Your task to perform on an android device: Turn off the flashlight Image 0: 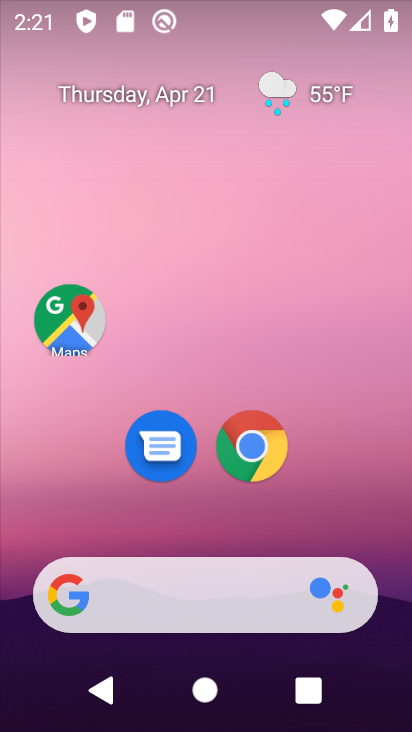
Step 0: drag from (209, 724) to (209, 102)
Your task to perform on an android device: Turn off the flashlight Image 1: 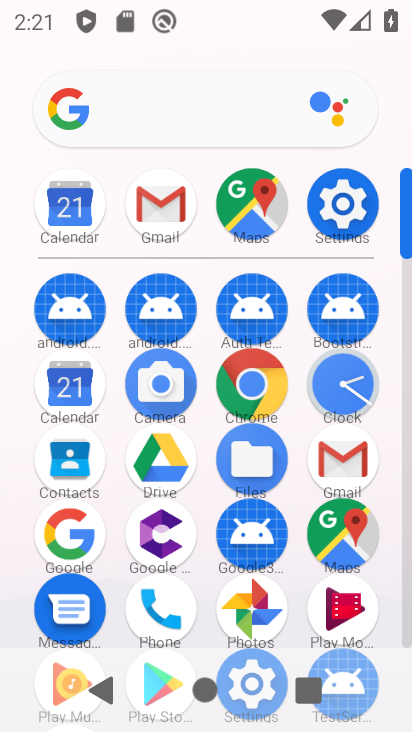
Step 1: click (340, 187)
Your task to perform on an android device: Turn off the flashlight Image 2: 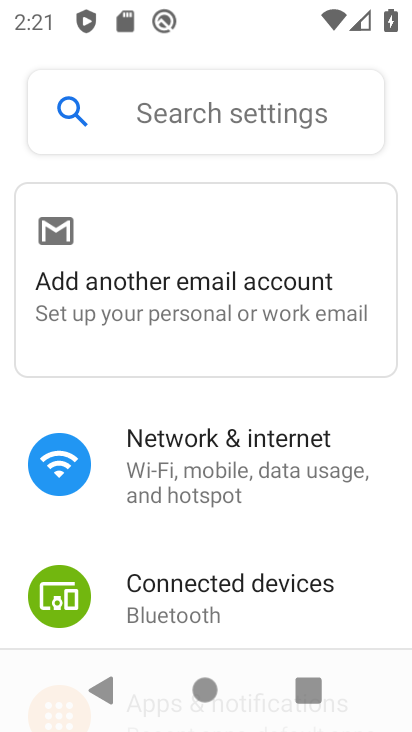
Step 2: task complete